Your task to perform on an android device: Check the news Image 0: 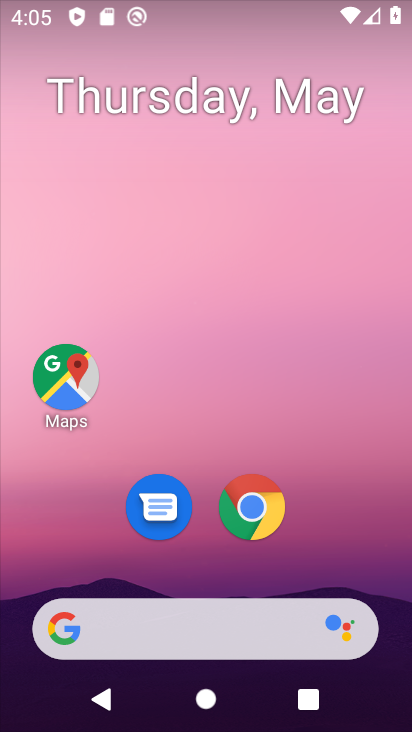
Step 0: drag from (355, 595) to (66, 15)
Your task to perform on an android device: Check the news Image 1: 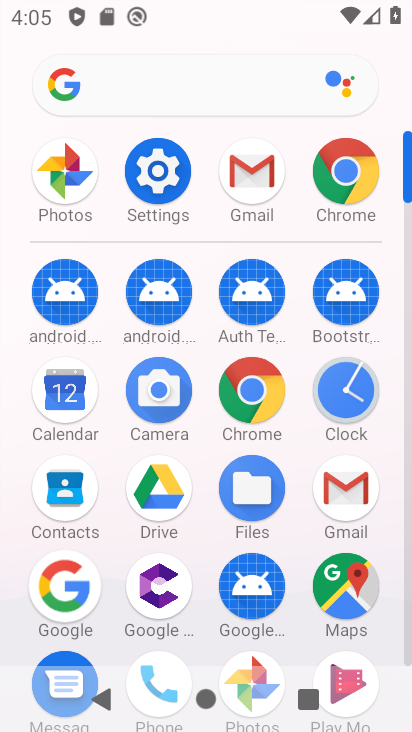
Step 1: click (381, 508)
Your task to perform on an android device: Check the news Image 2: 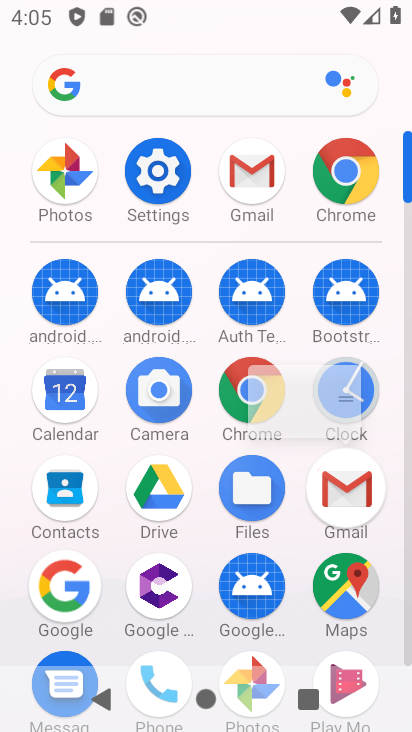
Step 2: click (391, 516)
Your task to perform on an android device: Check the news Image 3: 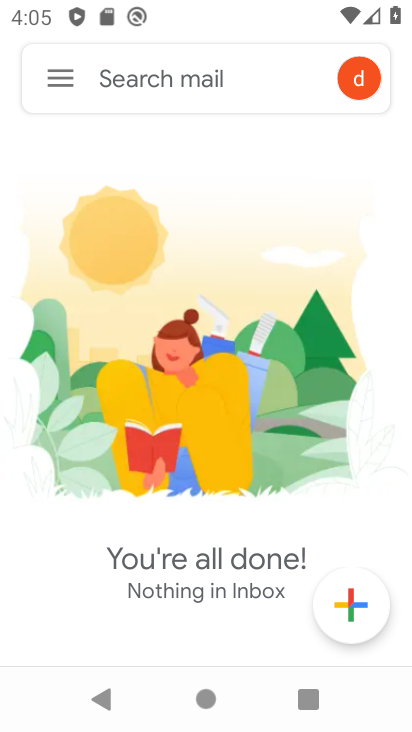
Step 3: press back button
Your task to perform on an android device: Check the news Image 4: 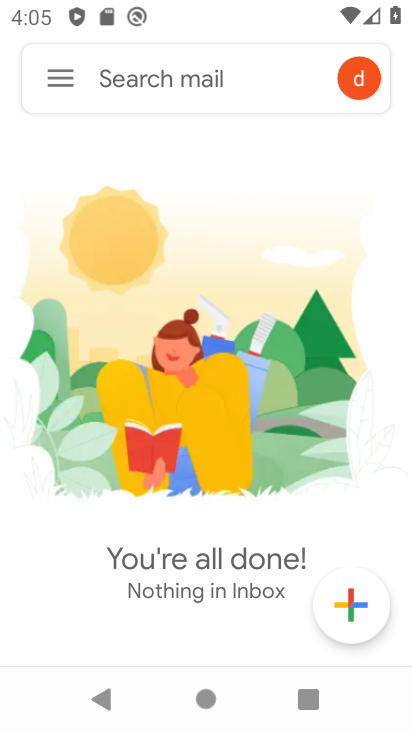
Step 4: press back button
Your task to perform on an android device: Check the news Image 5: 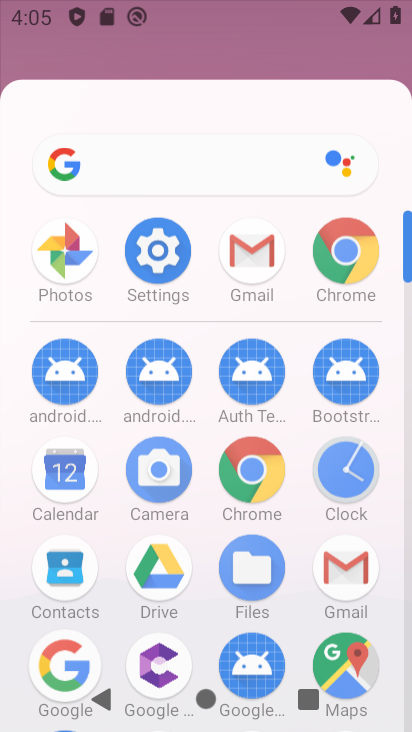
Step 5: press back button
Your task to perform on an android device: Check the news Image 6: 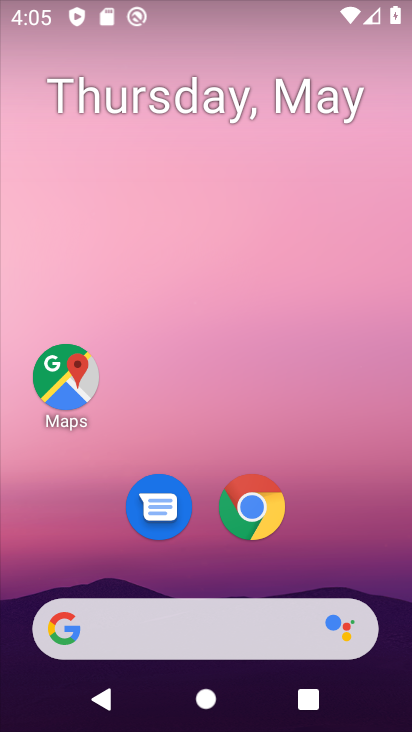
Step 6: drag from (5, 173) to (401, 366)
Your task to perform on an android device: Check the news Image 7: 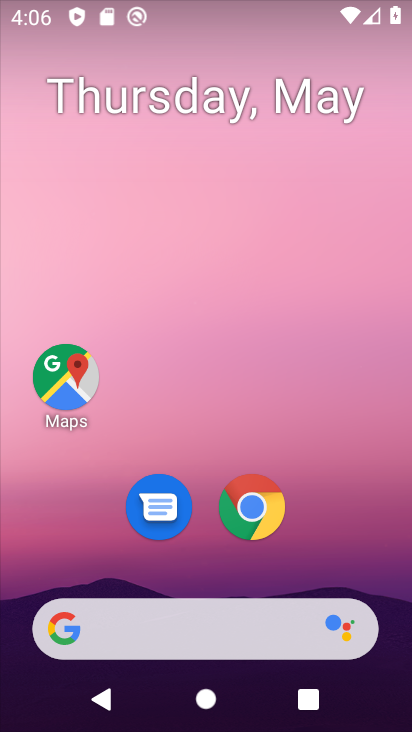
Step 7: drag from (5, 253) to (334, 306)
Your task to perform on an android device: Check the news Image 8: 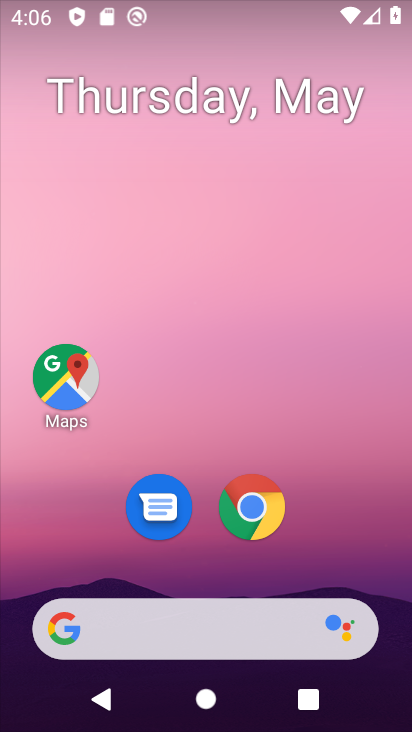
Step 8: drag from (18, 290) to (267, 429)
Your task to perform on an android device: Check the news Image 9: 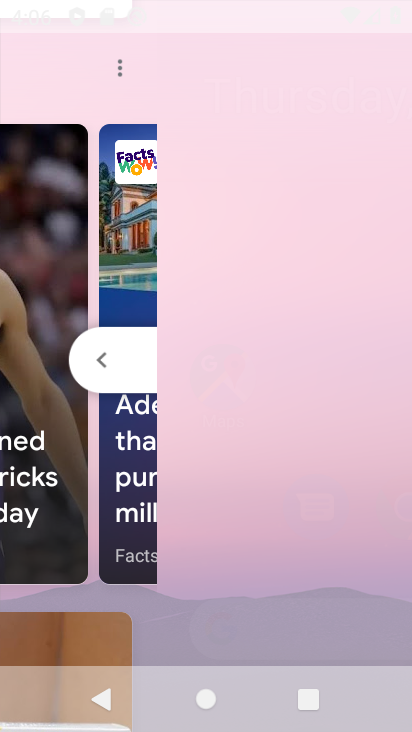
Step 9: drag from (47, 269) to (363, 472)
Your task to perform on an android device: Check the news Image 10: 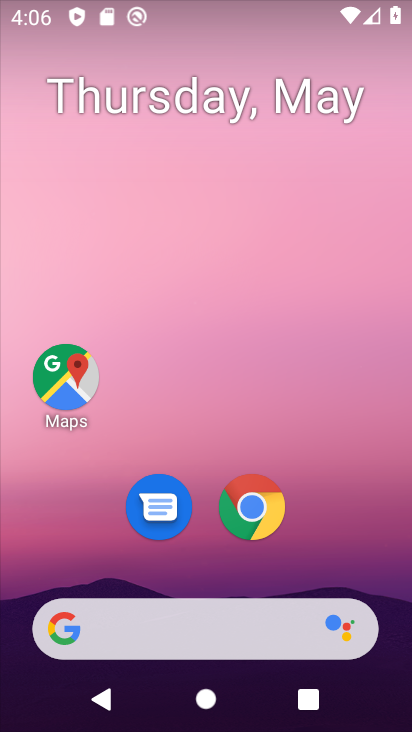
Step 10: drag from (12, 251) to (398, 428)
Your task to perform on an android device: Check the news Image 11: 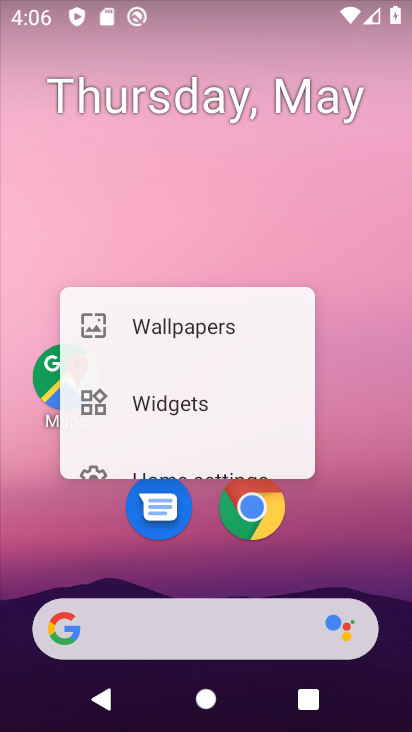
Step 11: click (387, 425)
Your task to perform on an android device: Check the news Image 12: 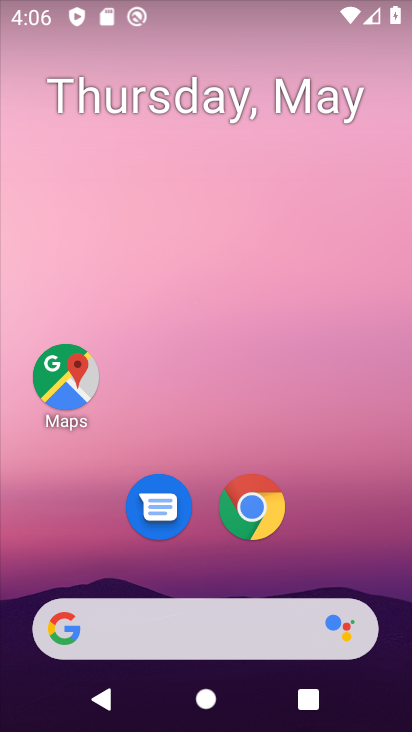
Step 12: drag from (36, 232) to (397, 445)
Your task to perform on an android device: Check the news Image 13: 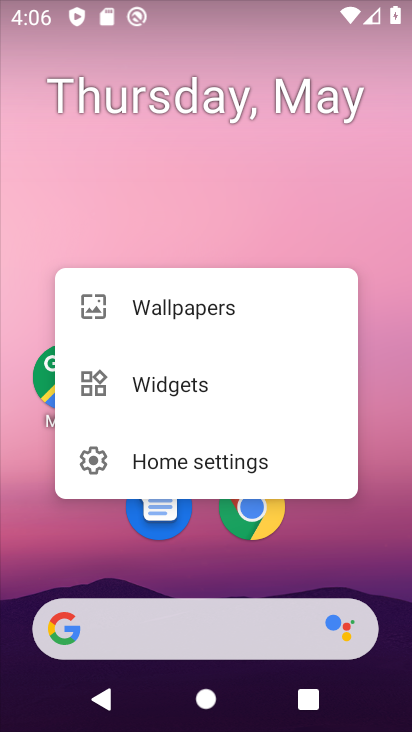
Step 13: drag from (20, 253) to (374, 320)
Your task to perform on an android device: Check the news Image 14: 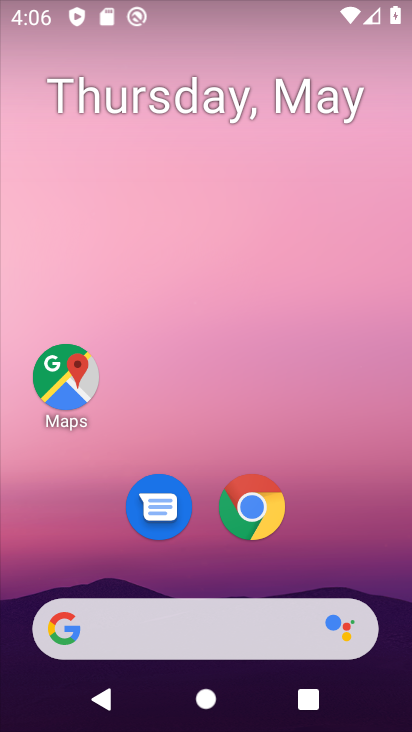
Step 14: click (383, 232)
Your task to perform on an android device: Check the news Image 15: 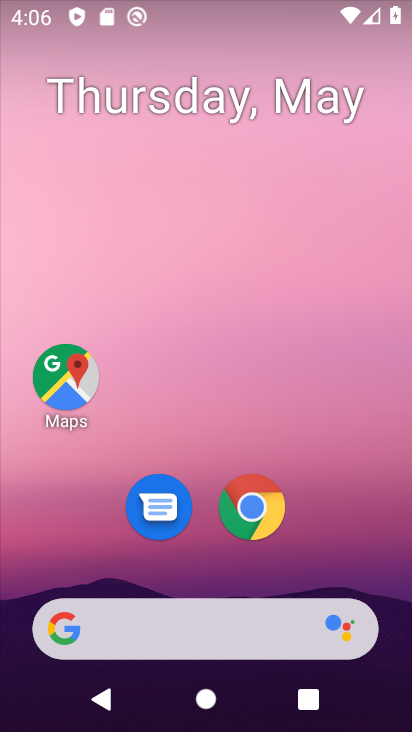
Step 15: task complete